Your task to perform on an android device: turn on javascript in the chrome app Image 0: 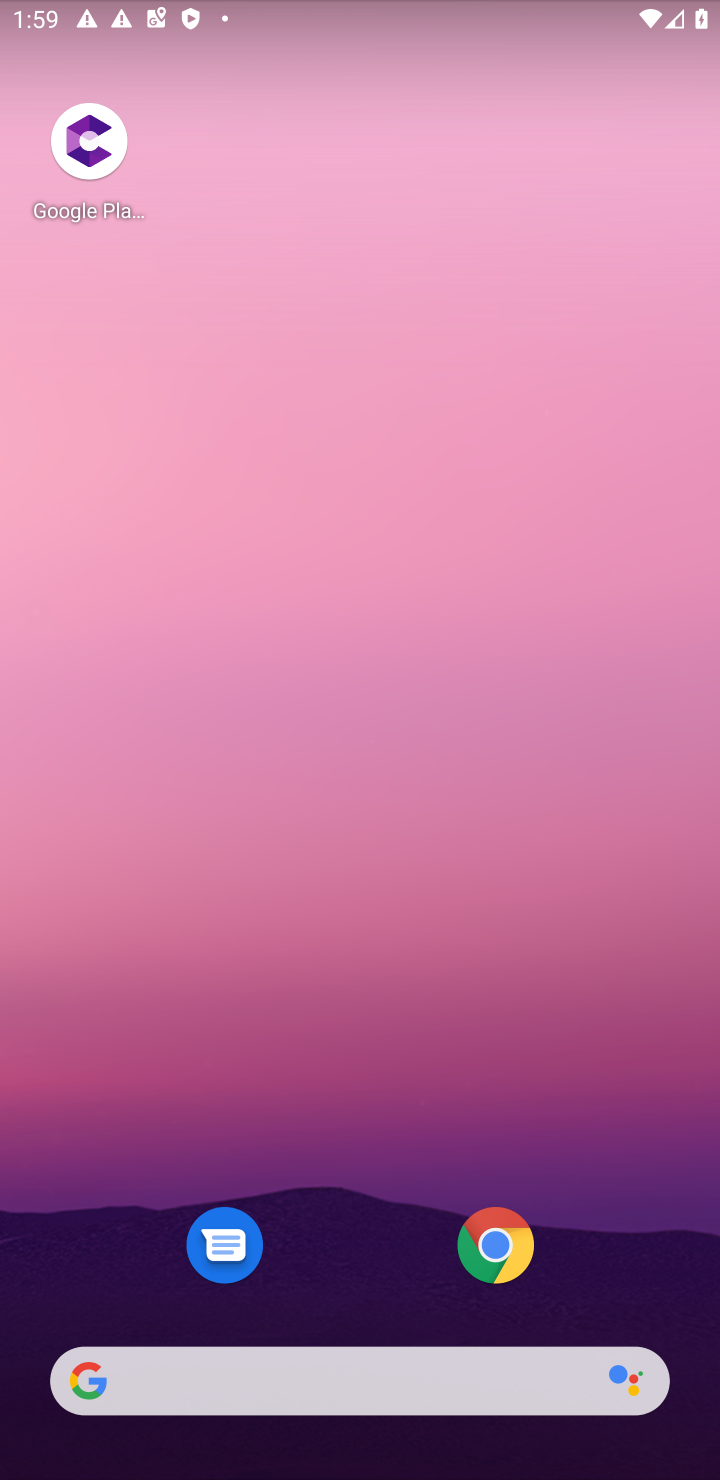
Step 0: drag from (453, 1250) to (415, 188)
Your task to perform on an android device: turn on javascript in the chrome app Image 1: 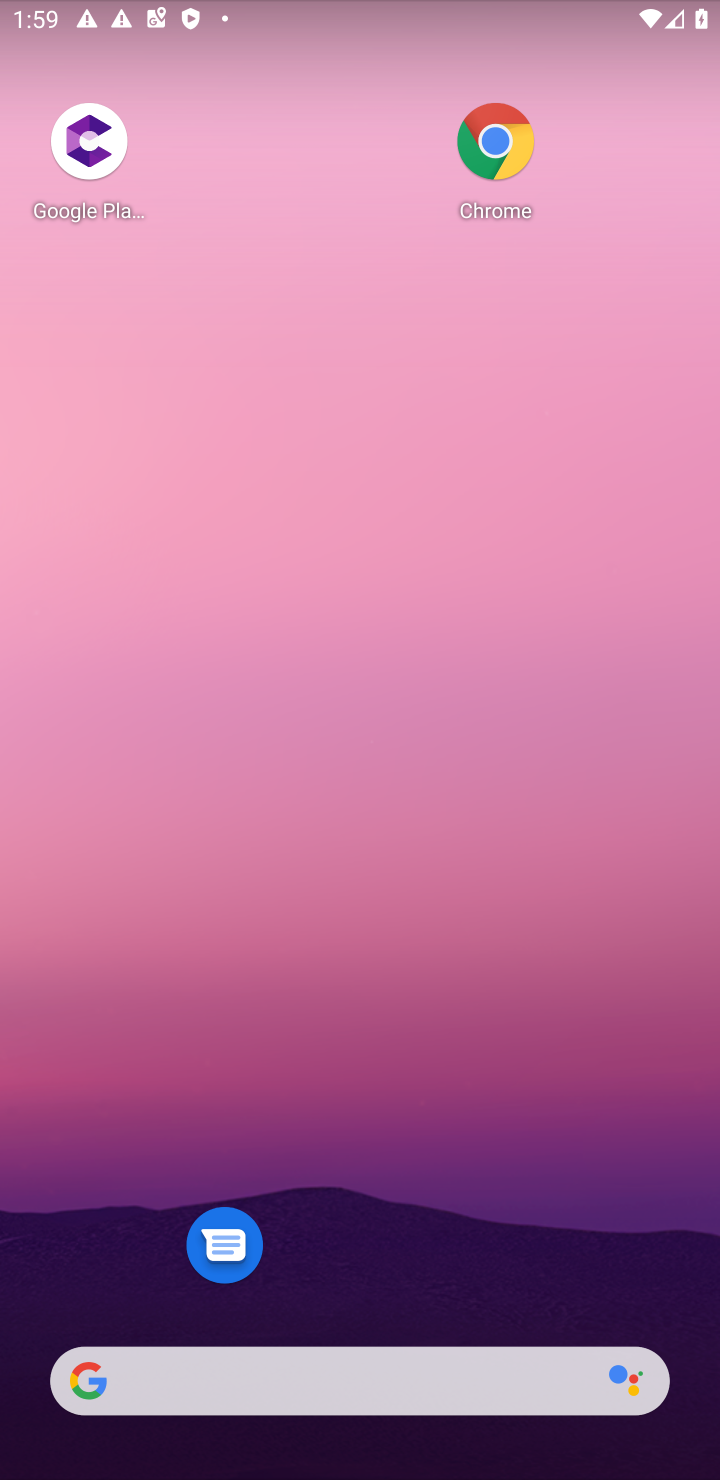
Step 1: drag from (383, 1195) to (387, 513)
Your task to perform on an android device: turn on javascript in the chrome app Image 2: 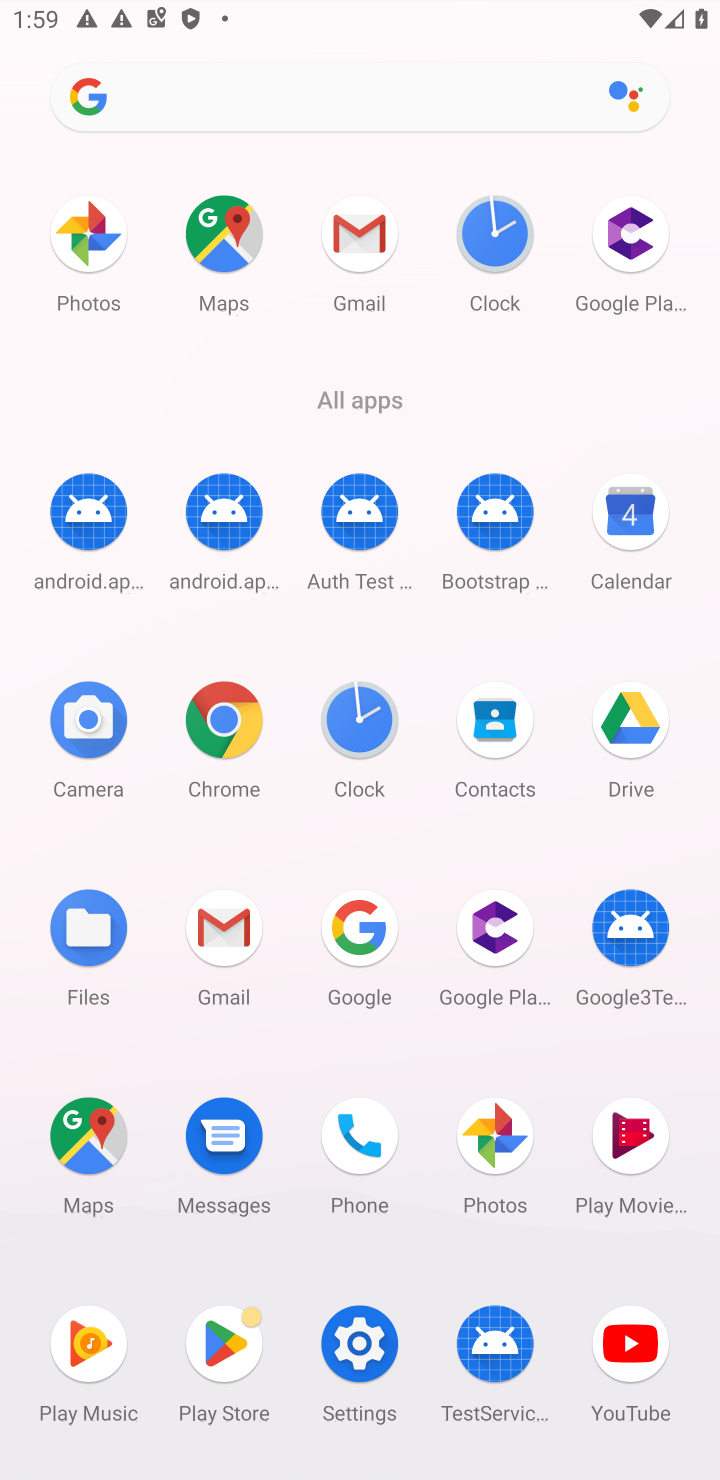
Step 2: click (223, 720)
Your task to perform on an android device: turn on javascript in the chrome app Image 3: 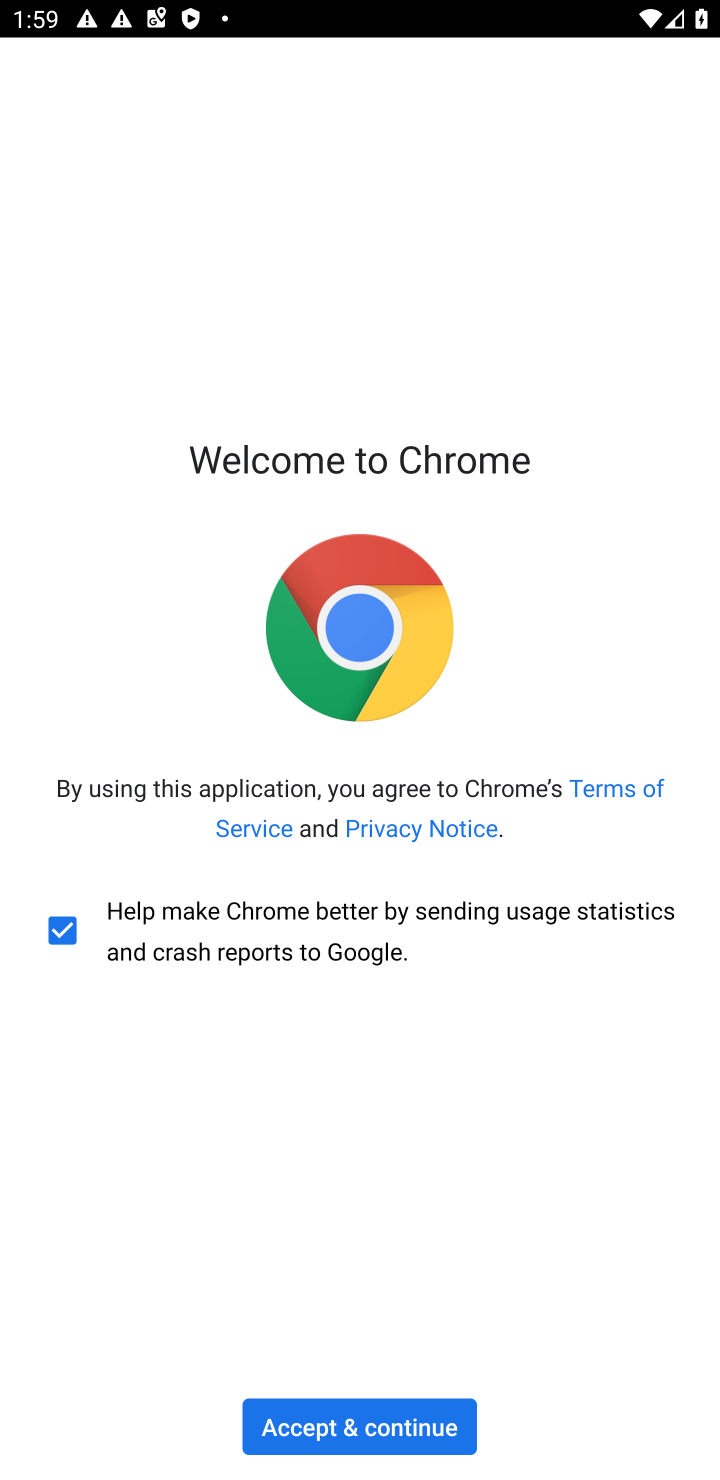
Step 3: click (368, 1421)
Your task to perform on an android device: turn on javascript in the chrome app Image 4: 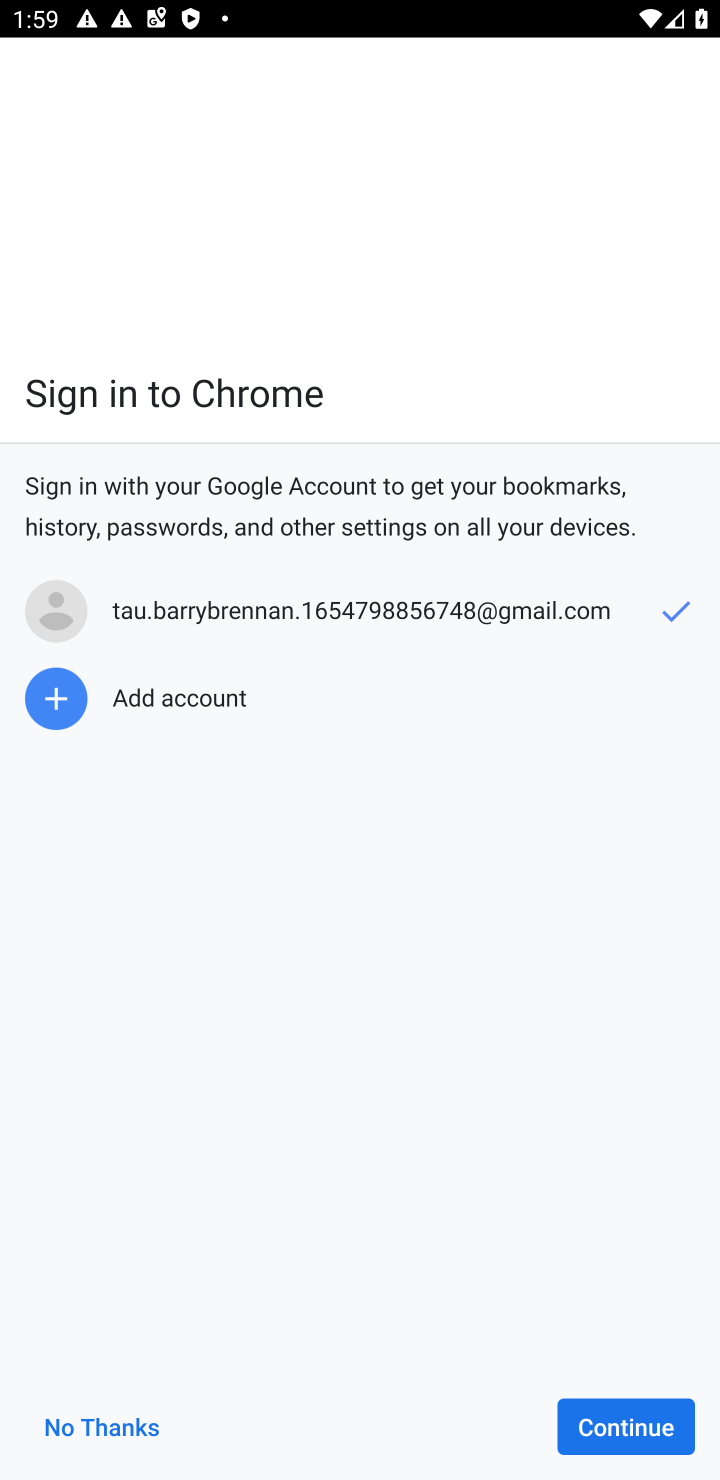
Step 4: click (649, 1430)
Your task to perform on an android device: turn on javascript in the chrome app Image 5: 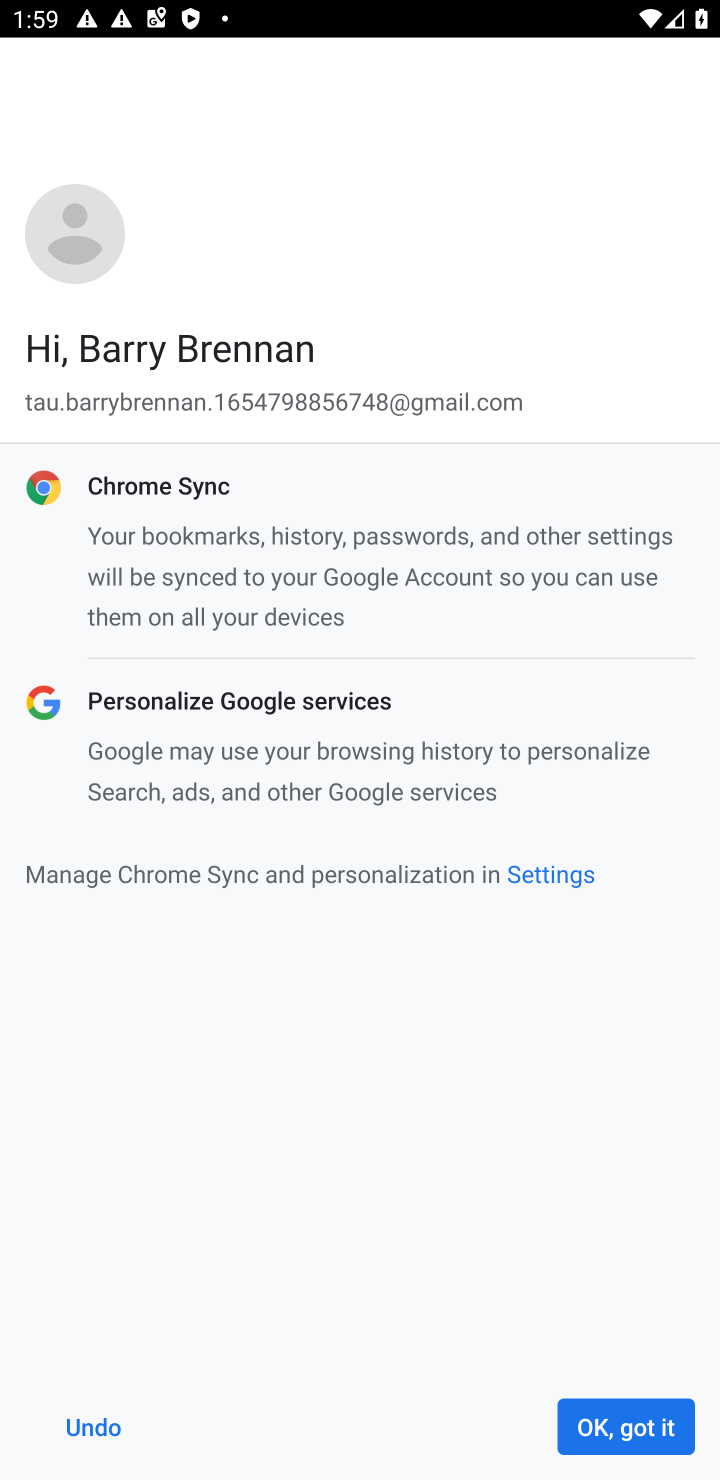
Step 5: click (649, 1430)
Your task to perform on an android device: turn on javascript in the chrome app Image 6: 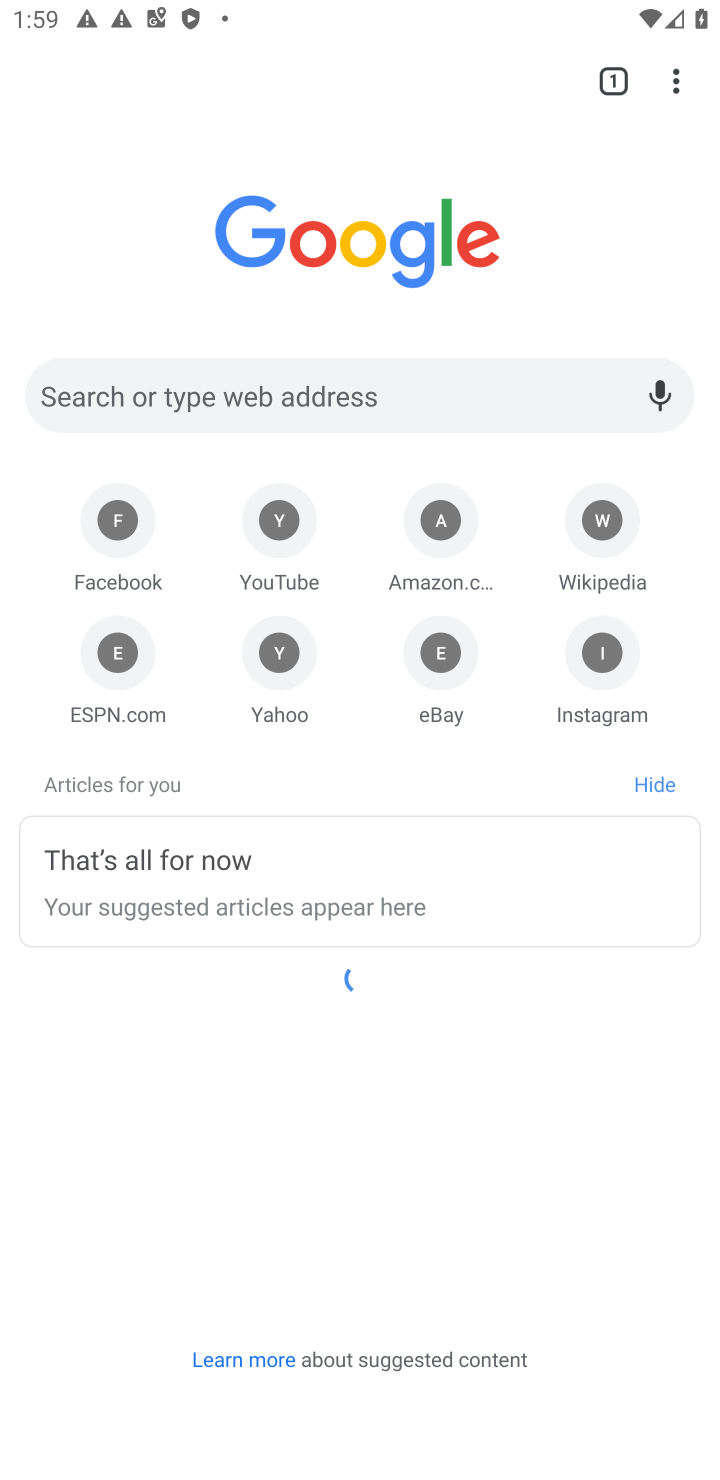
Step 6: click (666, 90)
Your task to perform on an android device: turn on javascript in the chrome app Image 7: 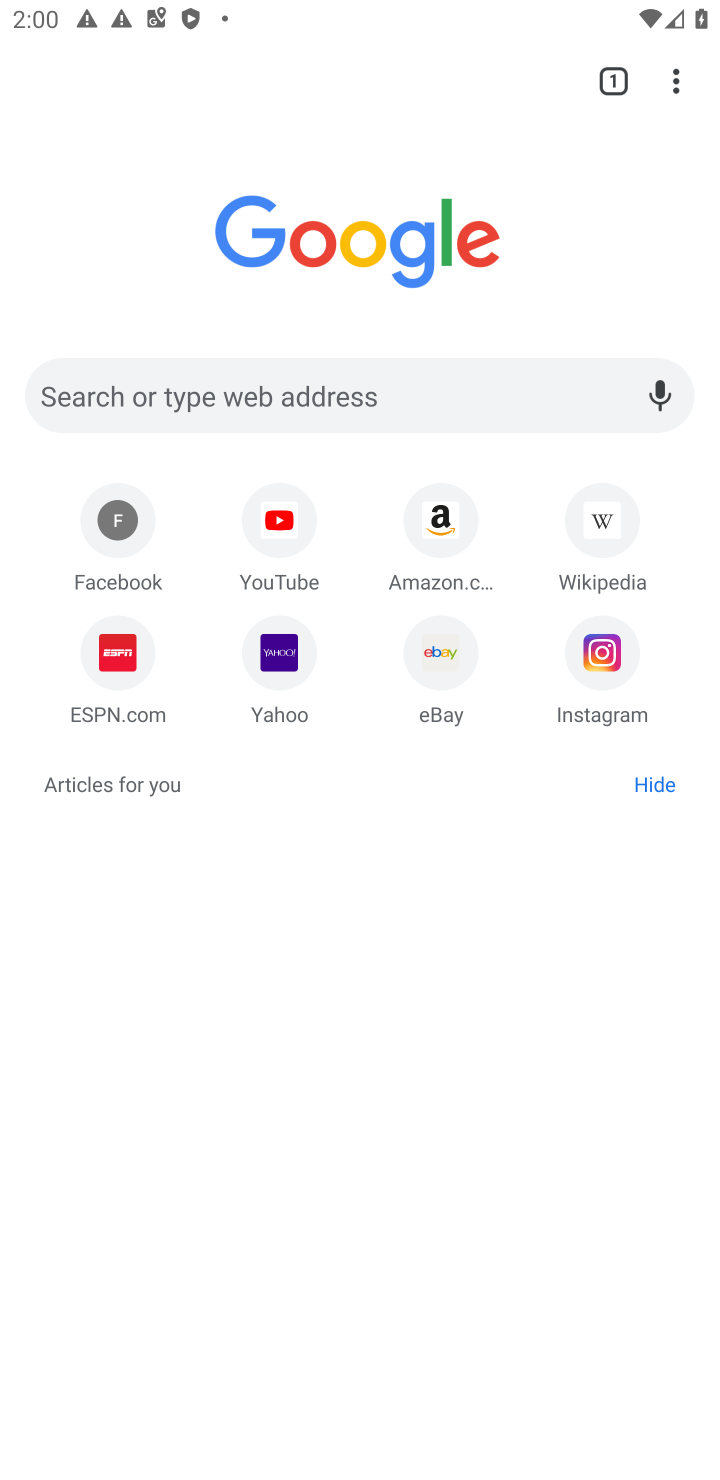
Step 7: click (678, 65)
Your task to perform on an android device: turn on javascript in the chrome app Image 8: 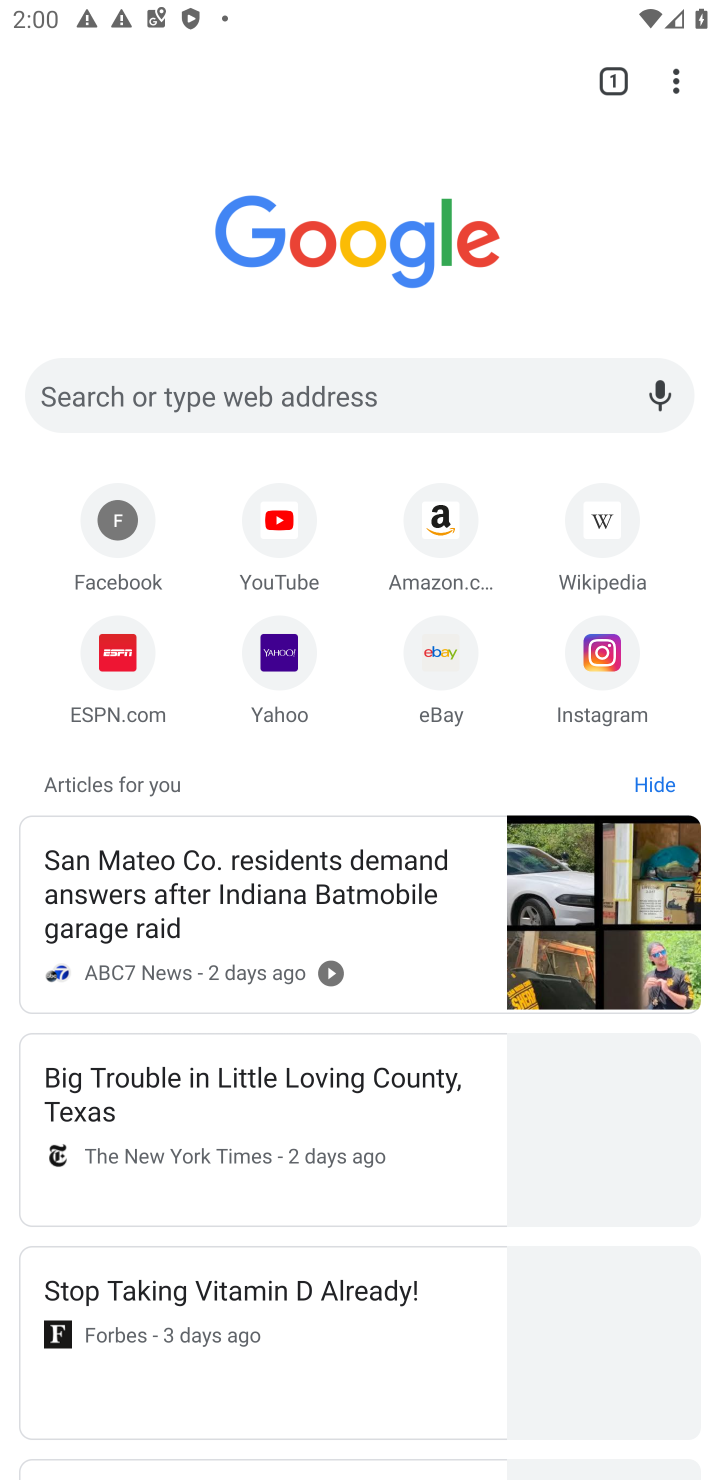
Step 8: click (682, 83)
Your task to perform on an android device: turn on javascript in the chrome app Image 9: 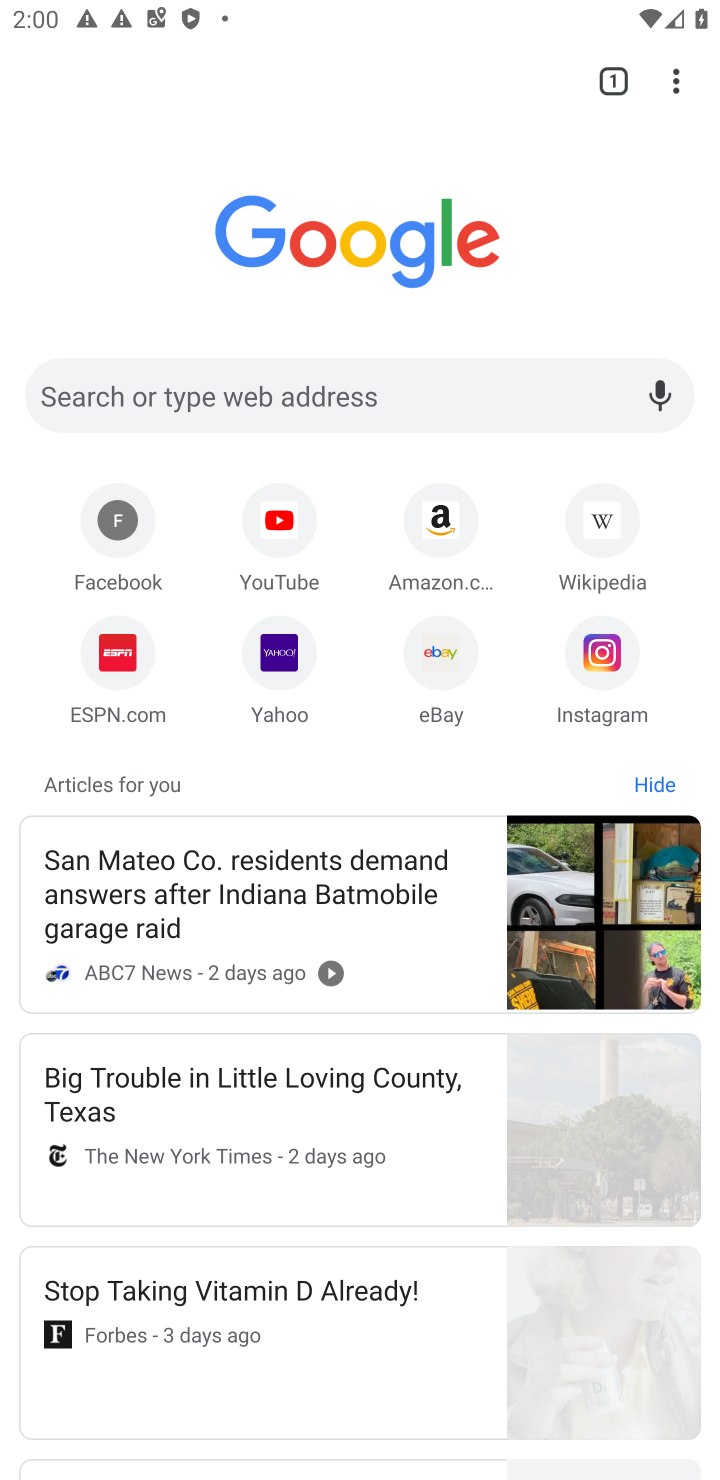
Step 9: click (685, 90)
Your task to perform on an android device: turn on javascript in the chrome app Image 10: 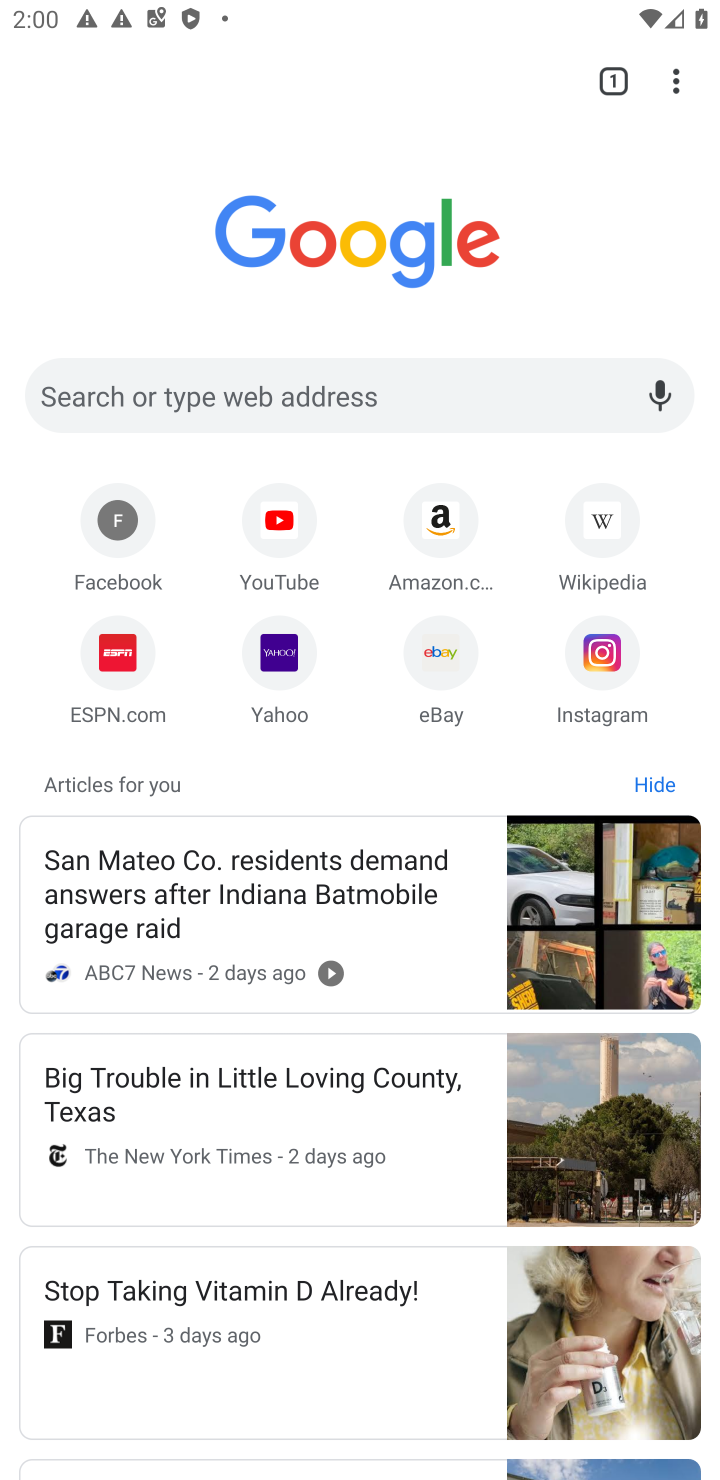
Step 10: click (686, 82)
Your task to perform on an android device: turn on javascript in the chrome app Image 11: 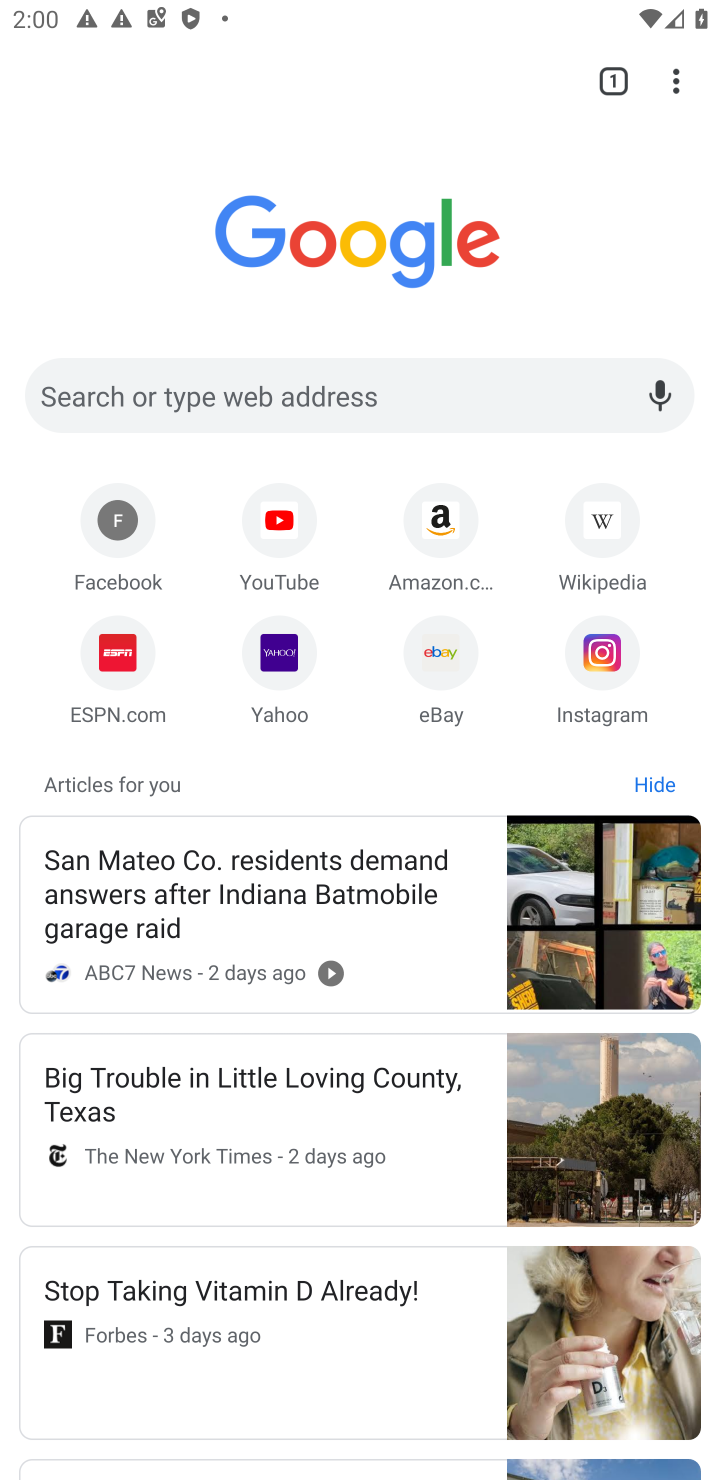
Step 11: click (673, 93)
Your task to perform on an android device: turn on javascript in the chrome app Image 12: 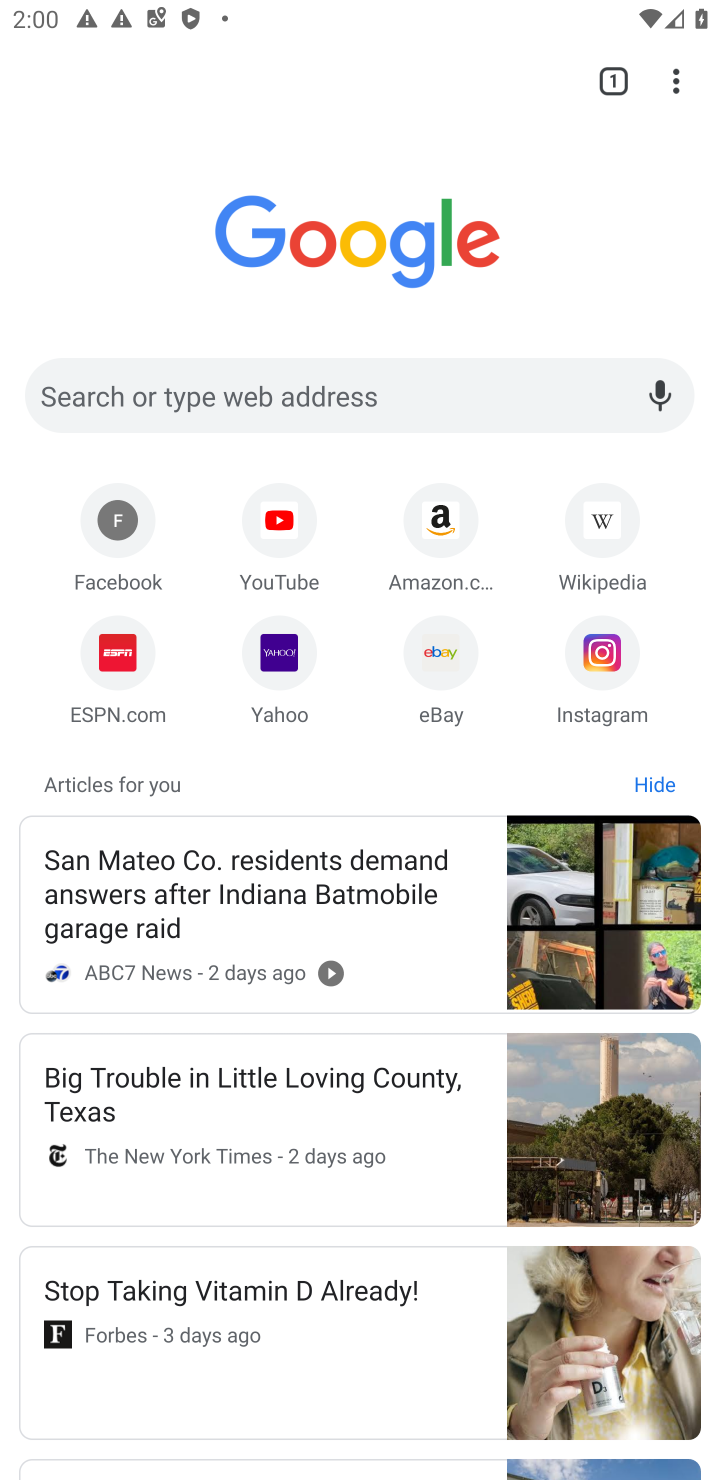
Step 12: click (681, 72)
Your task to perform on an android device: turn on javascript in the chrome app Image 13: 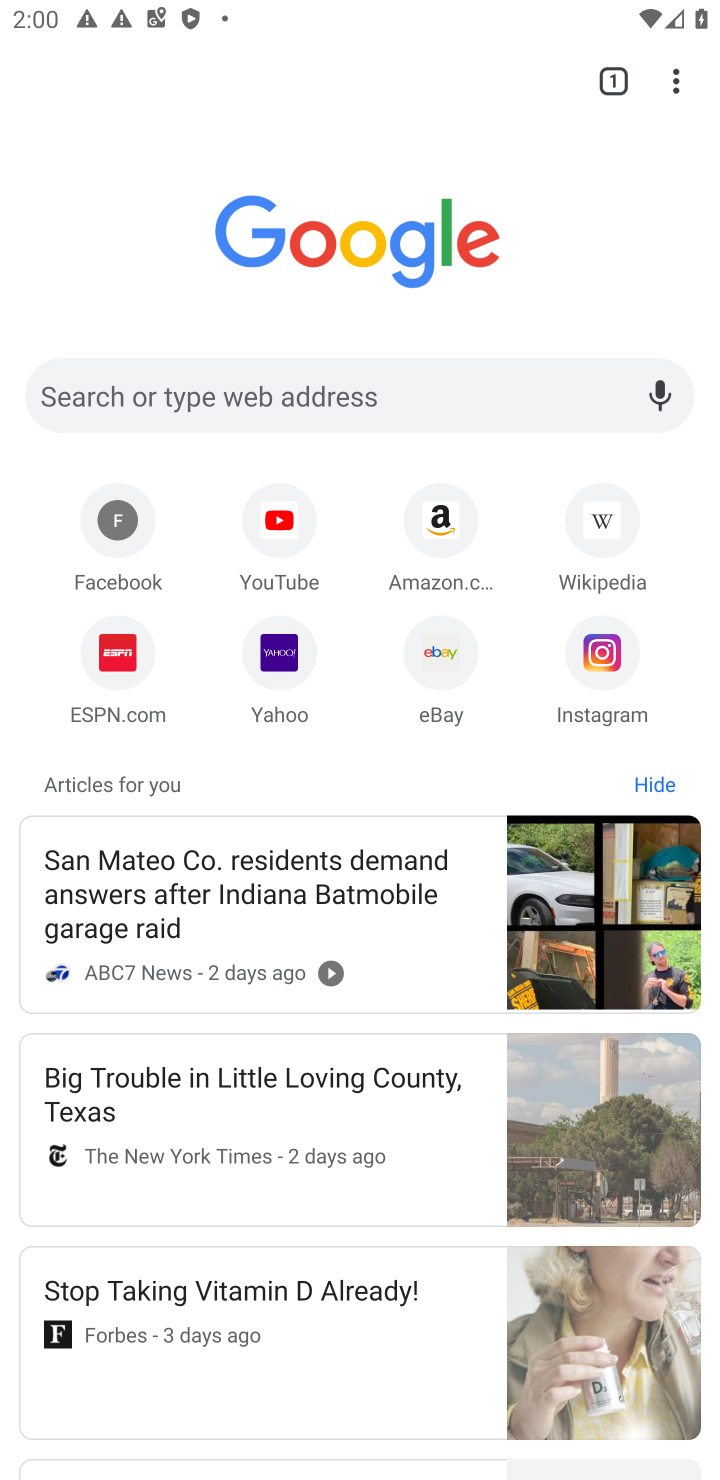
Step 13: click (661, 98)
Your task to perform on an android device: turn on javascript in the chrome app Image 14: 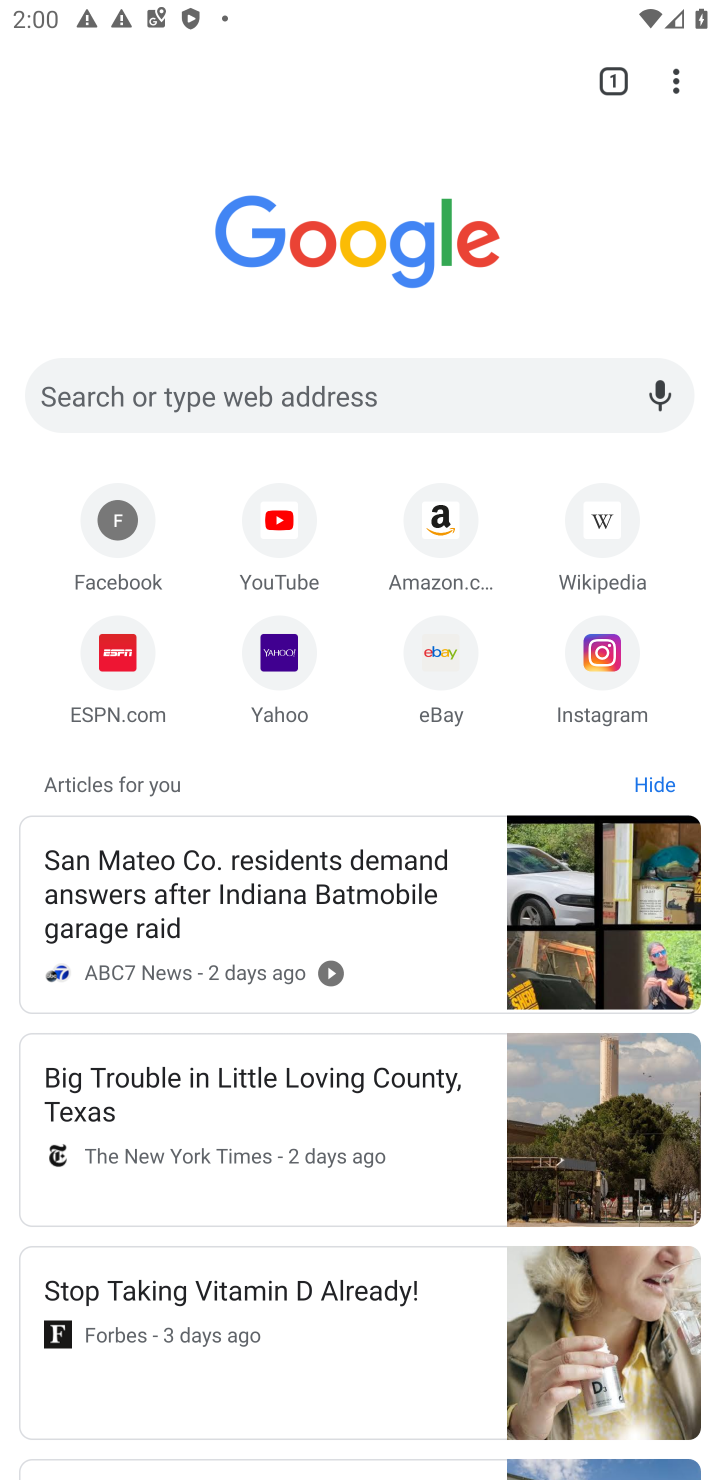
Step 14: click (677, 98)
Your task to perform on an android device: turn on javascript in the chrome app Image 15: 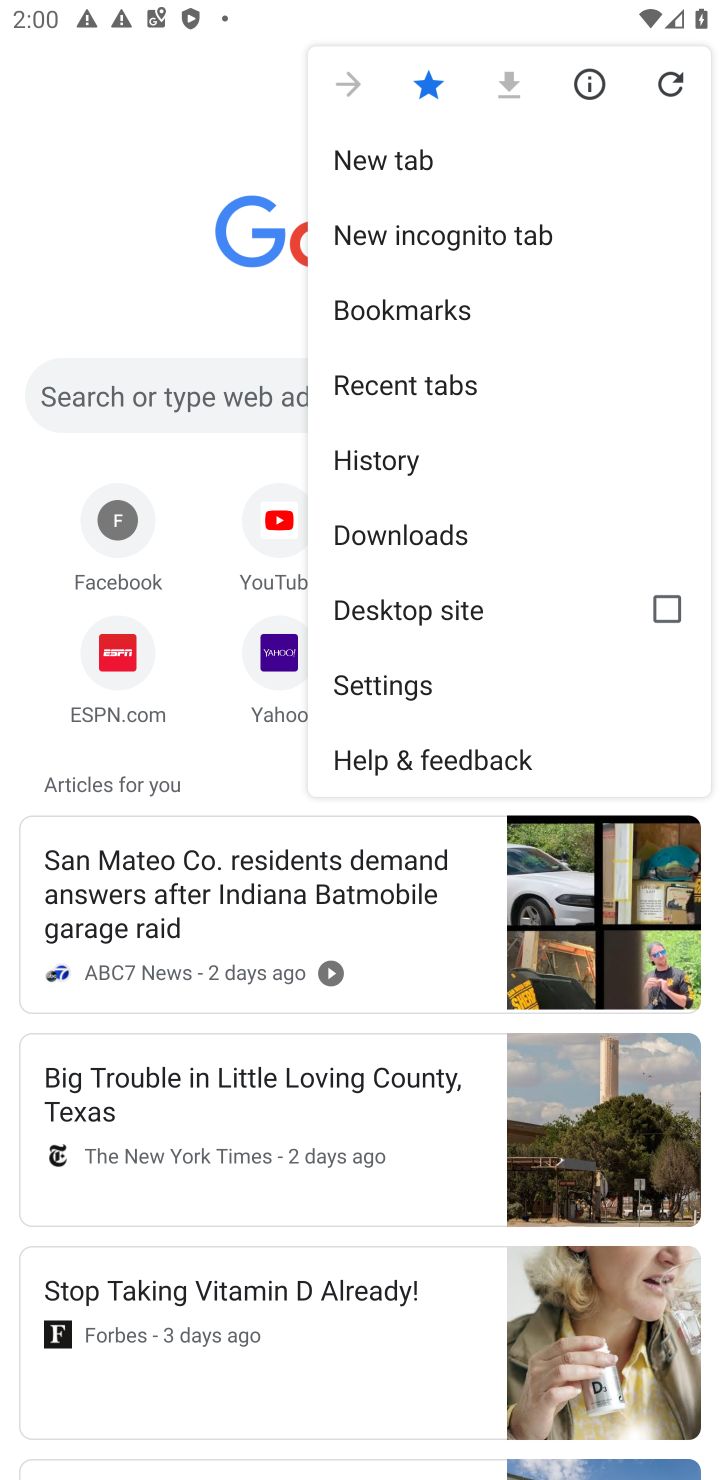
Step 15: click (402, 670)
Your task to perform on an android device: turn on javascript in the chrome app Image 16: 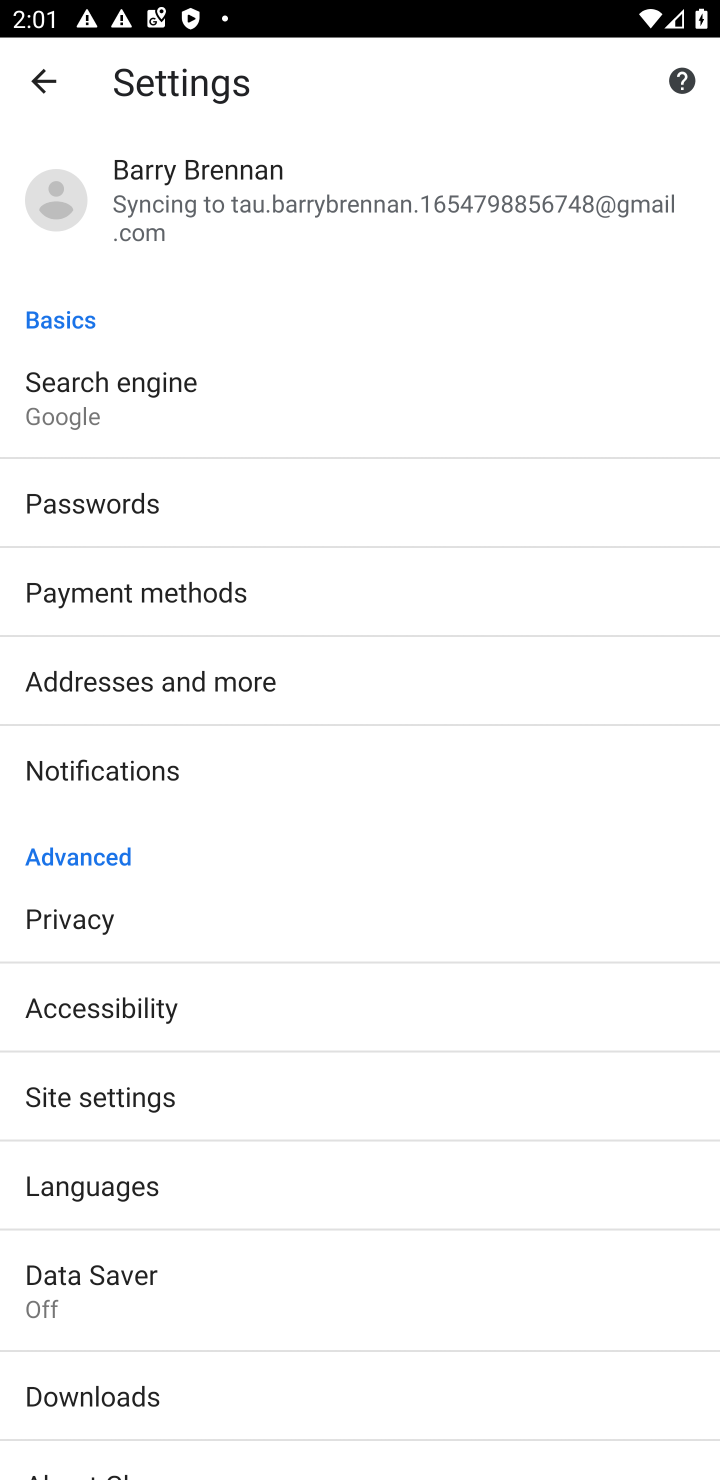
Step 16: click (145, 1071)
Your task to perform on an android device: turn on javascript in the chrome app Image 17: 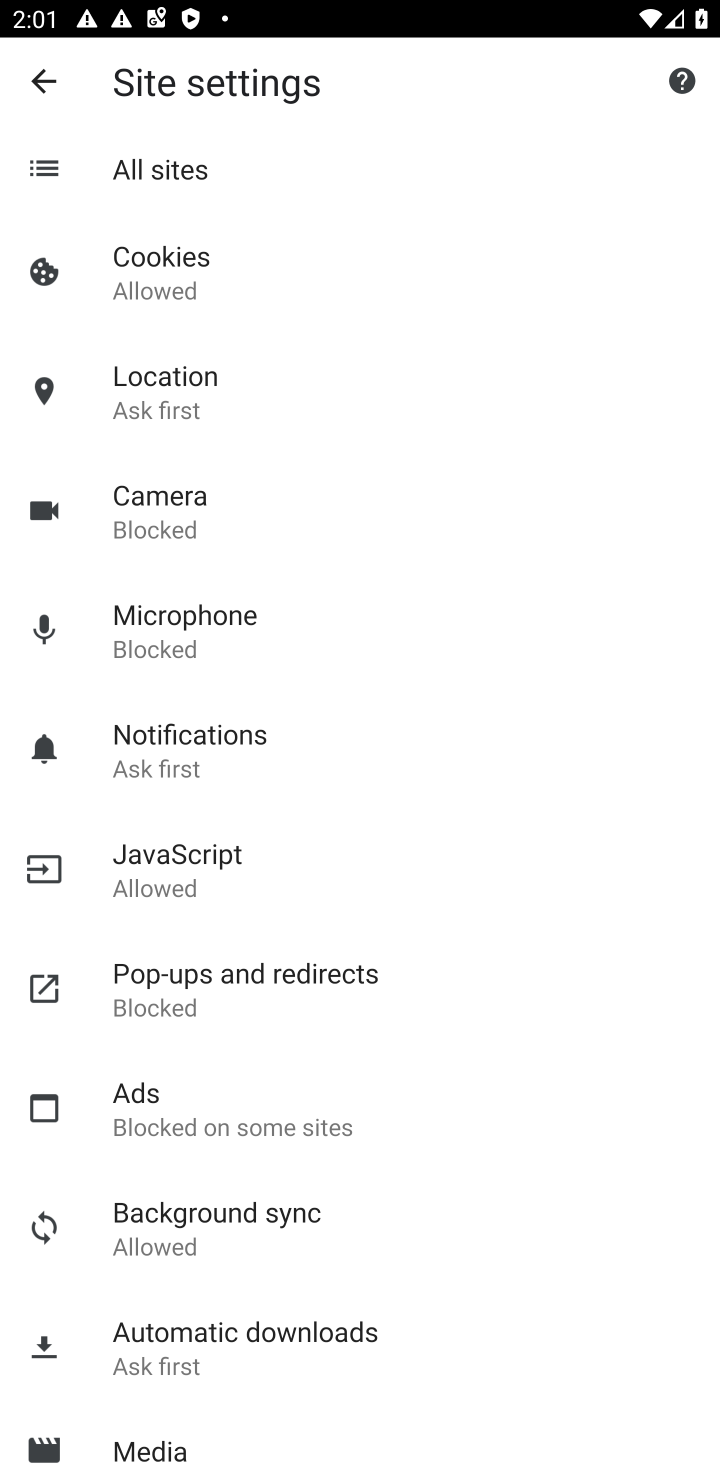
Step 17: click (207, 885)
Your task to perform on an android device: turn on javascript in the chrome app Image 18: 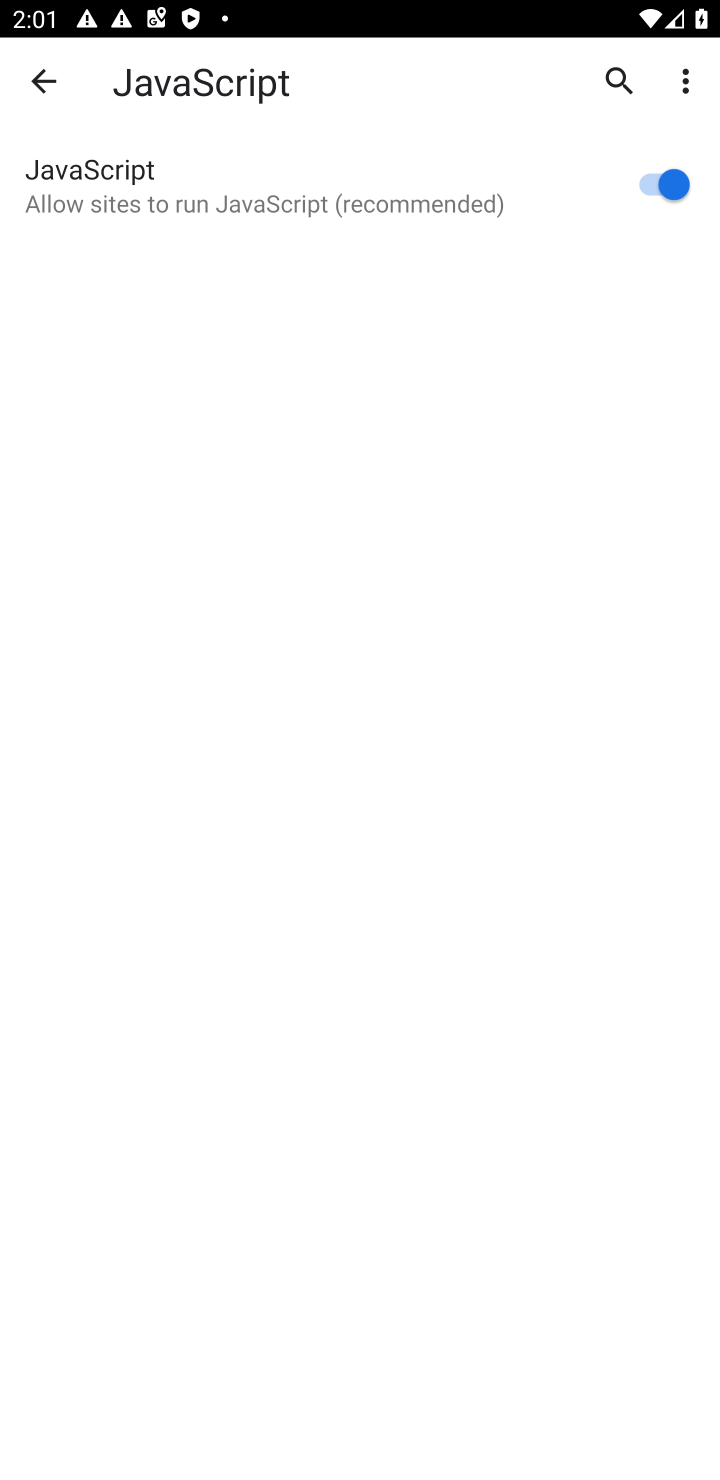
Step 18: task complete